Your task to perform on an android device: Go to battery settings Image 0: 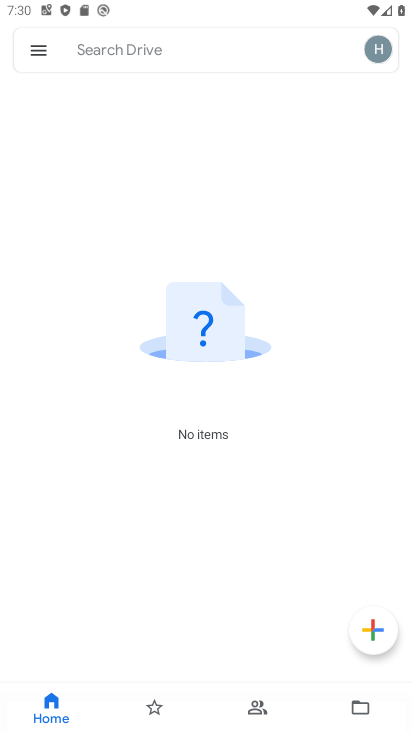
Step 0: press home button
Your task to perform on an android device: Go to battery settings Image 1: 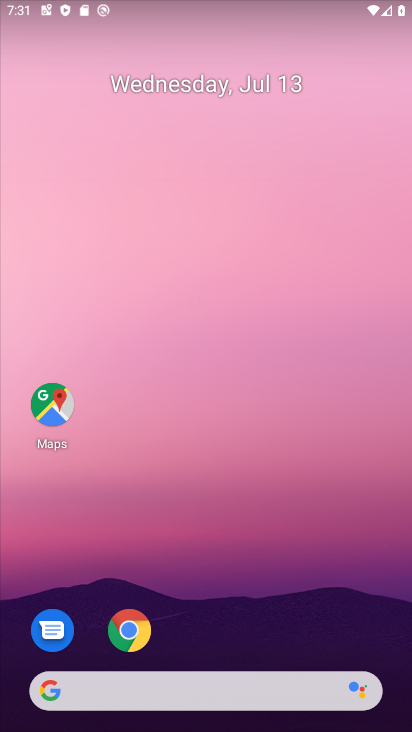
Step 1: drag from (350, 602) to (375, 112)
Your task to perform on an android device: Go to battery settings Image 2: 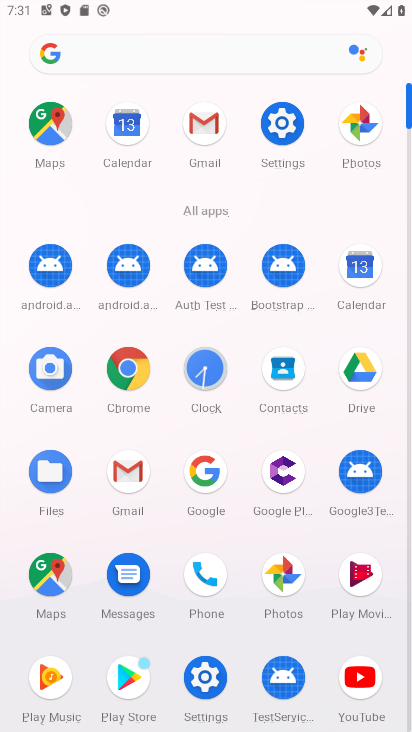
Step 2: click (275, 134)
Your task to perform on an android device: Go to battery settings Image 3: 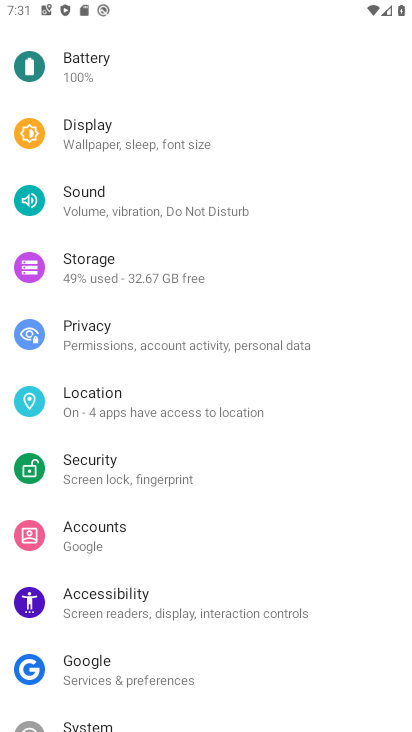
Step 3: drag from (331, 496) to (348, 325)
Your task to perform on an android device: Go to battery settings Image 4: 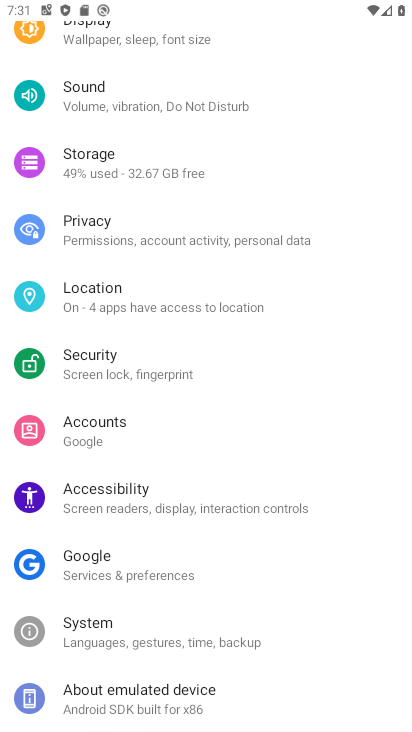
Step 4: drag from (348, 321) to (344, 392)
Your task to perform on an android device: Go to battery settings Image 5: 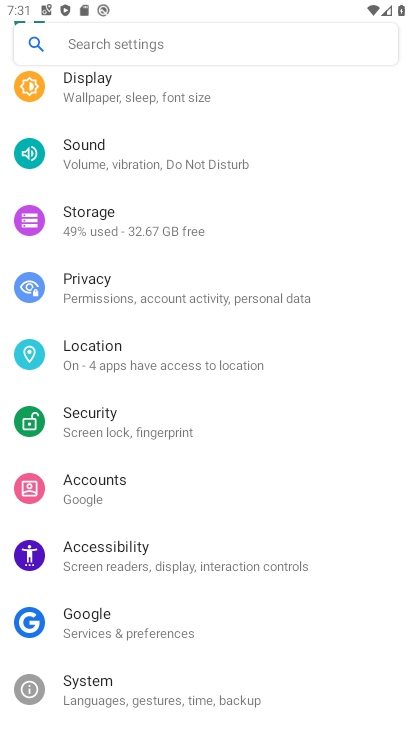
Step 5: drag from (342, 332) to (341, 394)
Your task to perform on an android device: Go to battery settings Image 6: 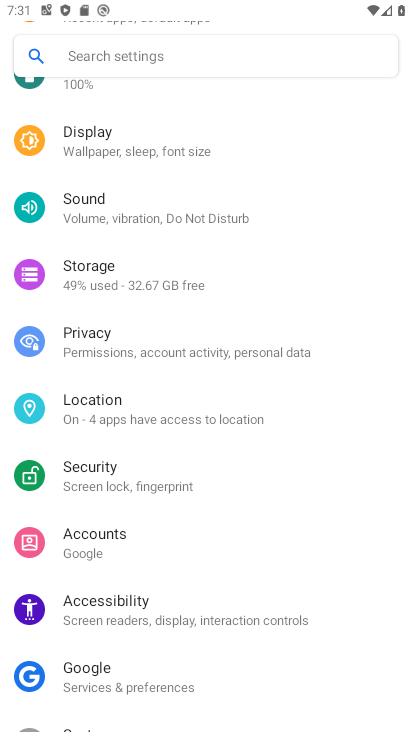
Step 6: drag from (347, 332) to (348, 399)
Your task to perform on an android device: Go to battery settings Image 7: 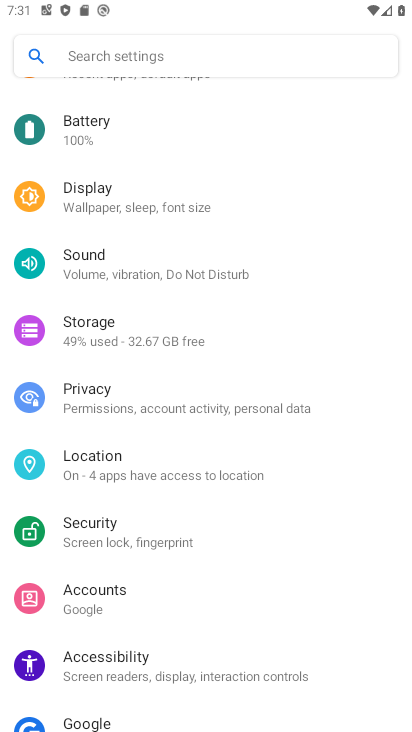
Step 7: drag from (358, 350) to (357, 416)
Your task to perform on an android device: Go to battery settings Image 8: 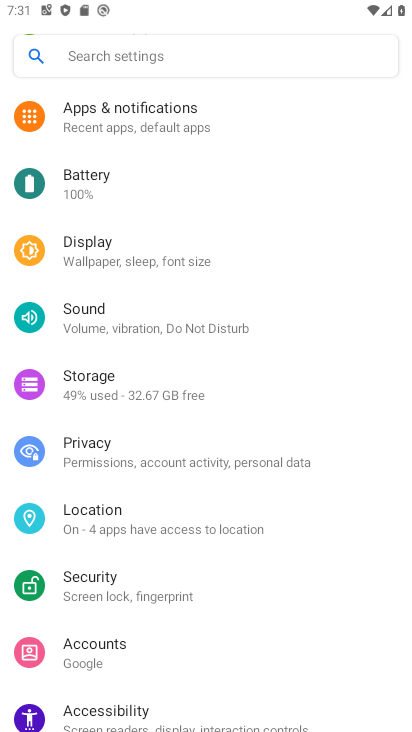
Step 8: drag from (349, 347) to (350, 405)
Your task to perform on an android device: Go to battery settings Image 9: 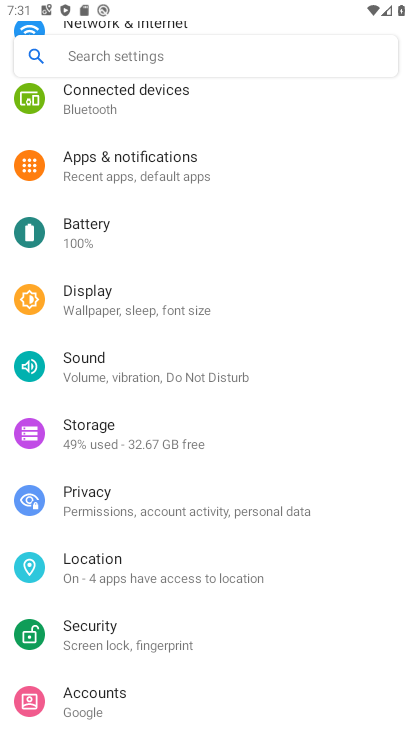
Step 9: drag from (357, 324) to (360, 397)
Your task to perform on an android device: Go to battery settings Image 10: 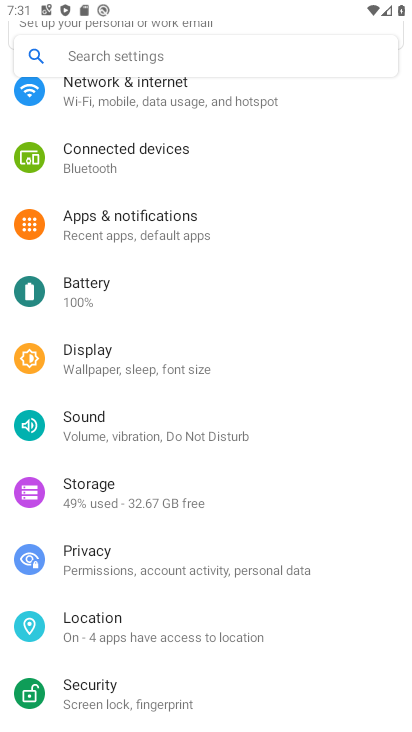
Step 10: drag from (359, 342) to (359, 418)
Your task to perform on an android device: Go to battery settings Image 11: 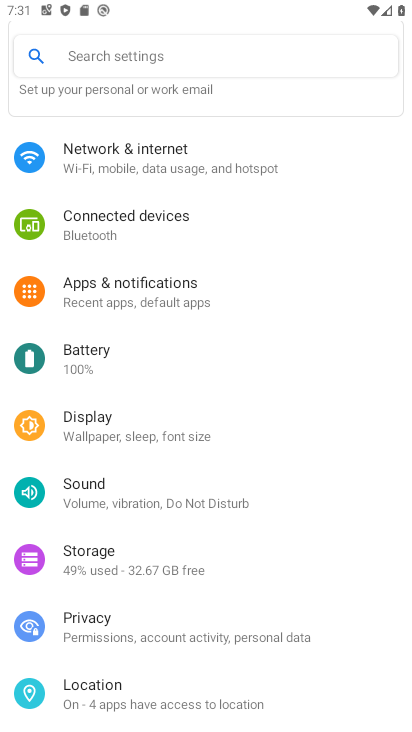
Step 11: drag from (350, 335) to (349, 422)
Your task to perform on an android device: Go to battery settings Image 12: 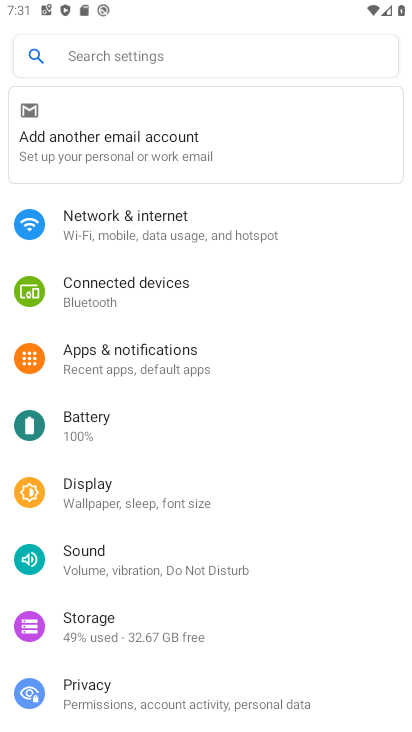
Step 12: drag from (340, 342) to (341, 471)
Your task to perform on an android device: Go to battery settings Image 13: 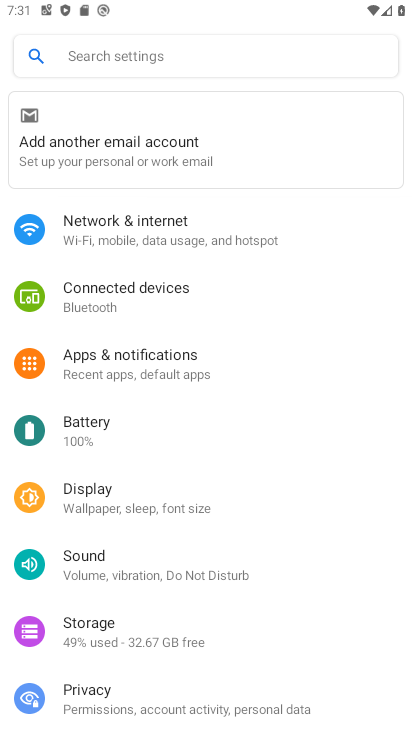
Step 13: click (157, 440)
Your task to perform on an android device: Go to battery settings Image 14: 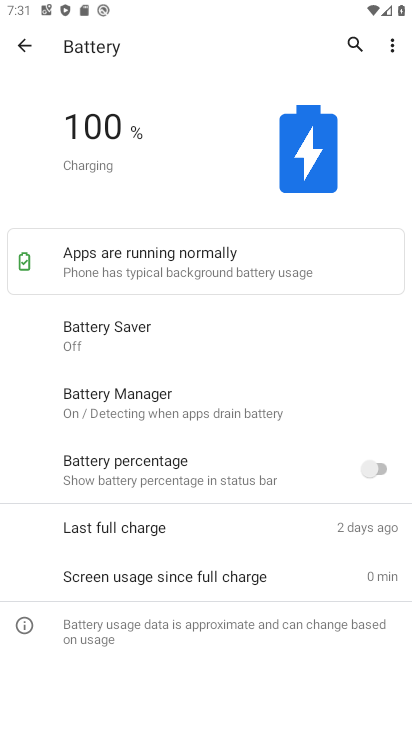
Step 14: task complete